Your task to perform on an android device: check battery use Image 0: 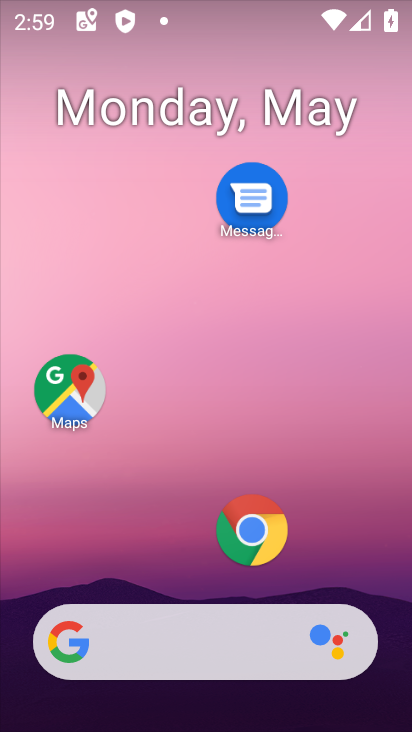
Step 0: drag from (158, 507) to (246, 51)
Your task to perform on an android device: check battery use Image 1: 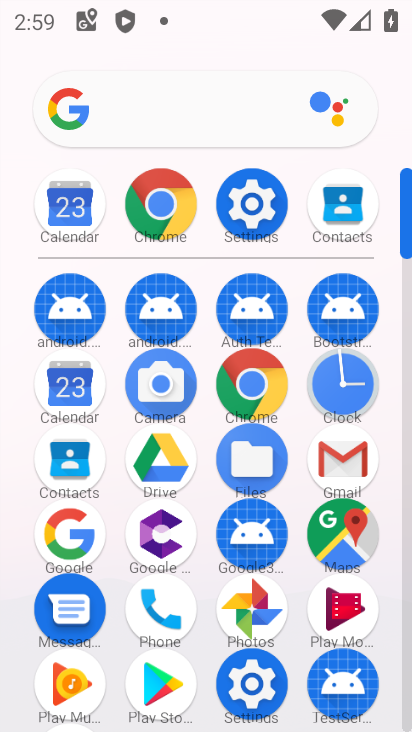
Step 1: click (240, 206)
Your task to perform on an android device: check battery use Image 2: 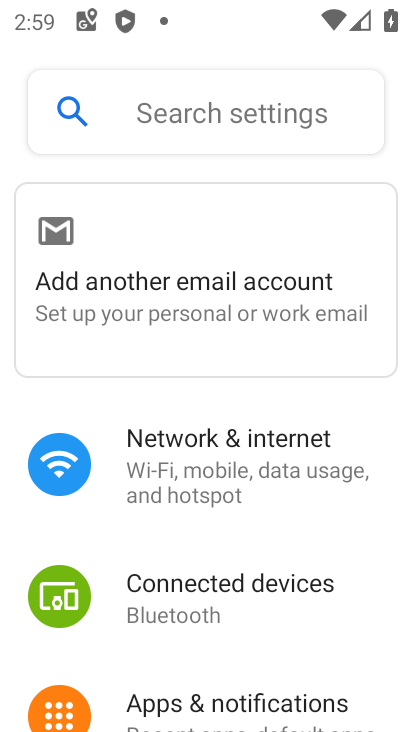
Step 2: drag from (193, 599) to (306, 177)
Your task to perform on an android device: check battery use Image 3: 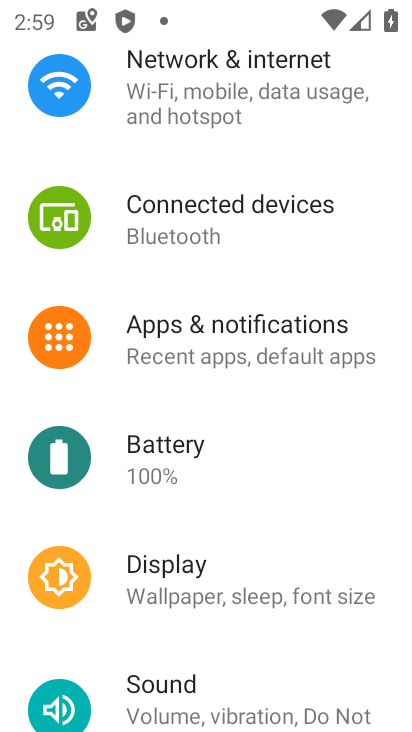
Step 3: click (147, 461)
Your task to perform on an android device: check battery use Image 4: 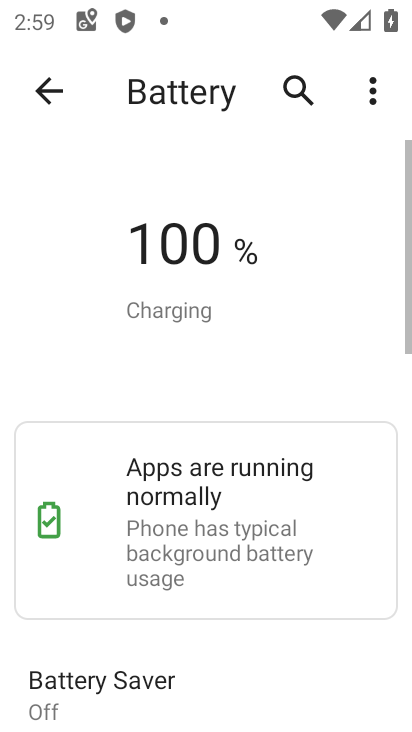
Step 4: click (371, 106)
Your task to perform on an android device: check battery use Image 5: 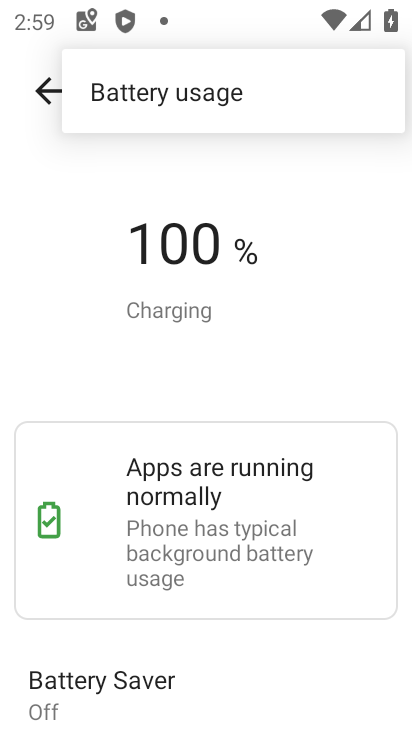
Step 5: click (266, 107)
Your task to perform on an android device: check battery use Image 6: 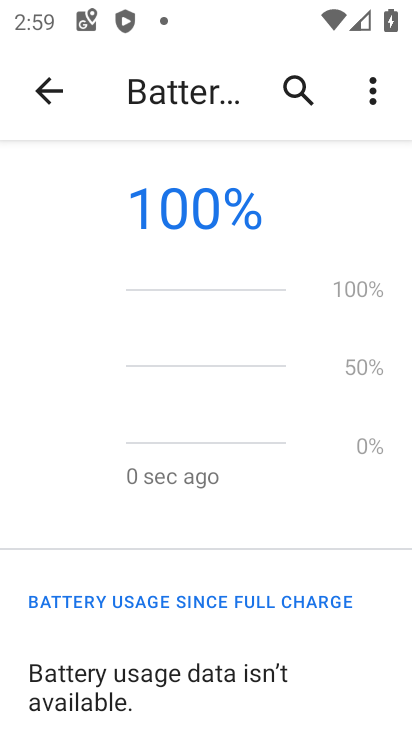
Step 6: task complete